Your task to perform on an android device: toggle sleep mode Image 0: 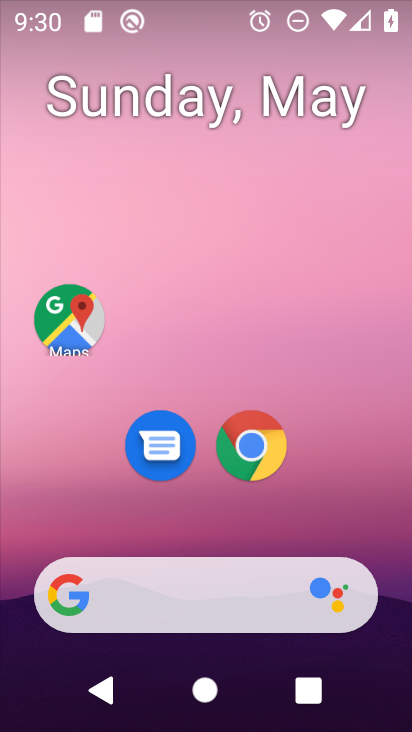
Step 0: drag from (300, 603) to (337, 257)
Your task to perform on an android device: toggle sleep mode Image 1: 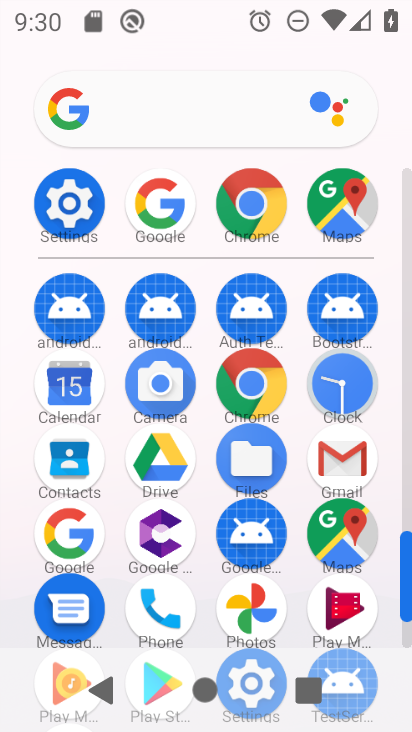
Step 1: click (90, 224)
Your task to perform on an android device: toggle sleep mode Image 2: 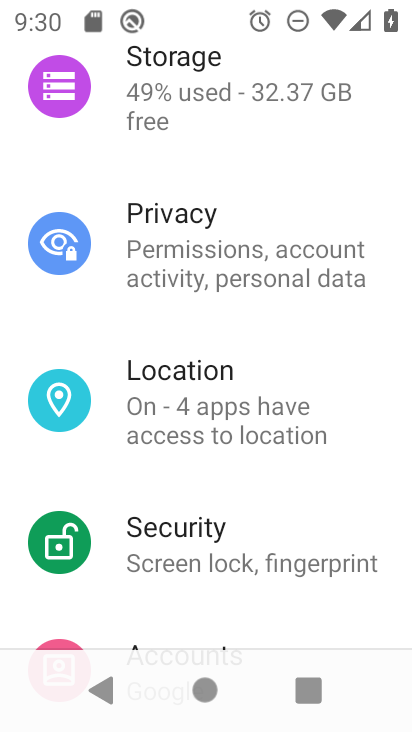
Step 2: drag from (202, 417) to (200, 336)
Your task to perform on an android device: toggle sleep mode Image 3: 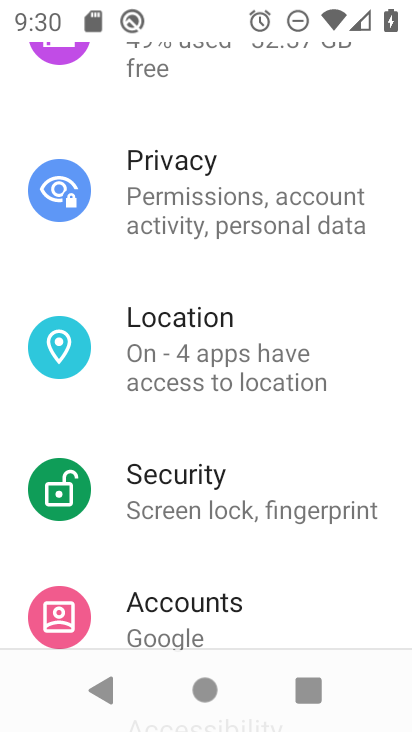
Step 3: drag from (200, 336) to (199, 528)
Your task to perform on an android device: toggle sleep mode Image 4: 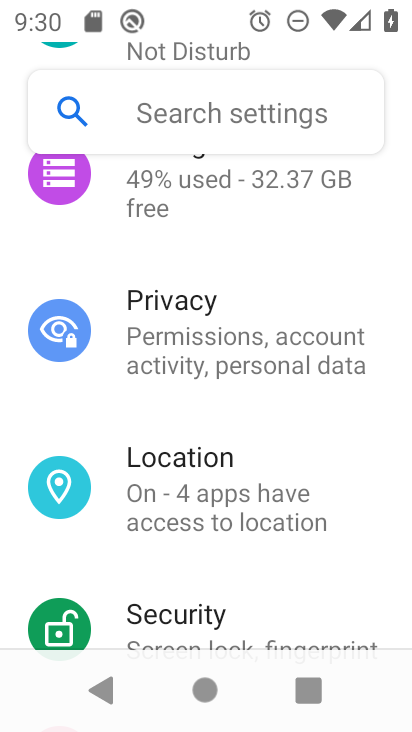
Step 4: drag from (199, 549) to (211, 417)
Your task to perform on an android device: toggle sleep mode Image 5: 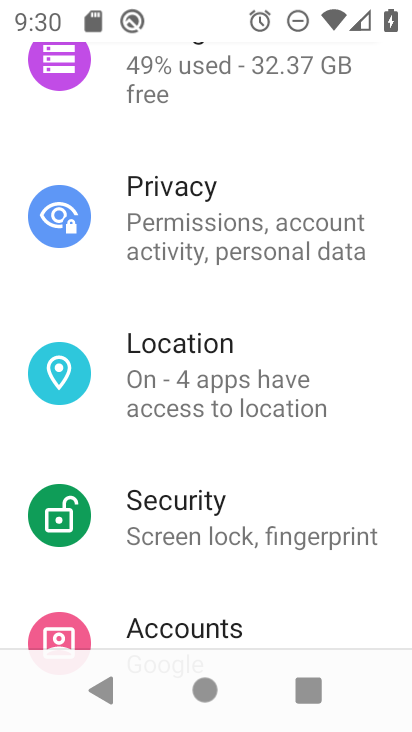
Step 5: drag from (221, 362) to (200, 437)
Your task to perform on an android device: toggle sleep mode Image 6: 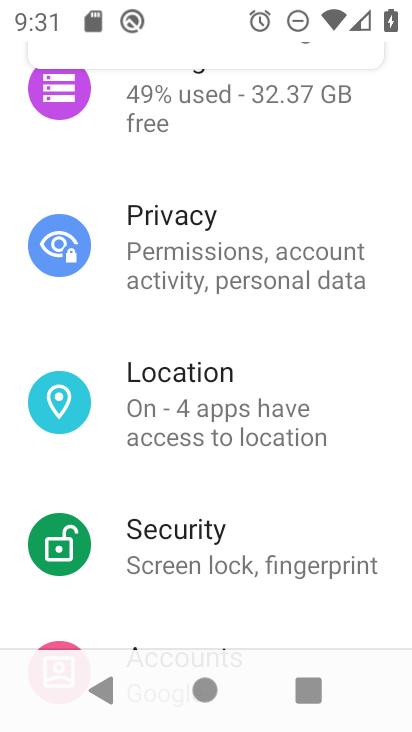
Step 6: drag from (253, 175) to (226, 510)
Your task to perform on an android device: toggle sleep mode Image 7: 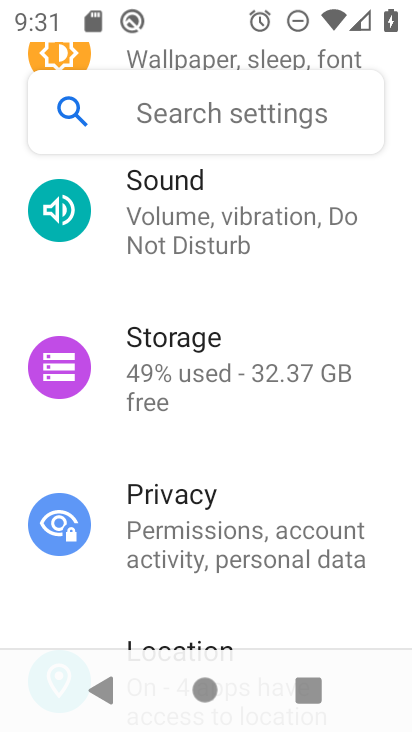
Step 7: drag from (257, 216) to (231, 543)
Your task to perform on an android device: toggle sleep mode Image 8: 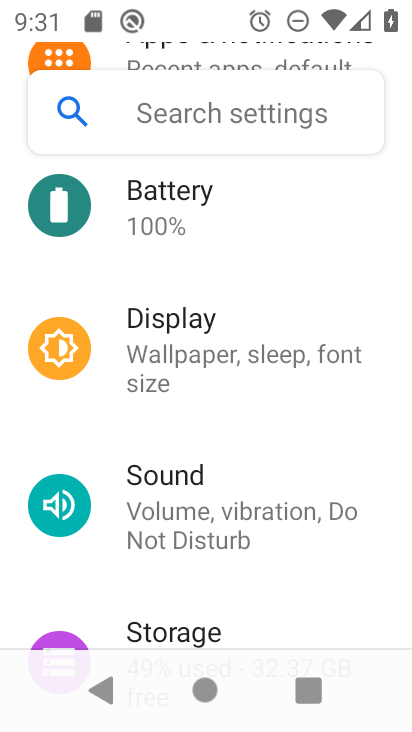
Step 8: click (227, 380)
Your task to perform on an android device: toggle sleep mode Image 9: 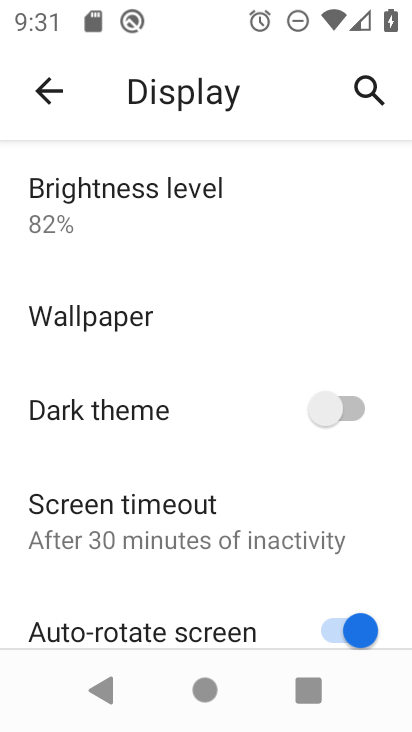
Step 9: drag from (158, 576) to (214, 324)
Your task to perform on an android device: toggle sleep mode Image 10: 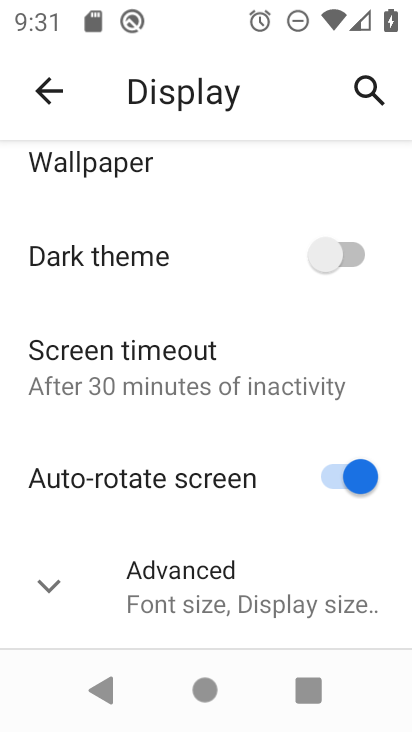
Step 10: click (144, 599)
Your task to perform on an android device: toggle sleep mode Image 11: 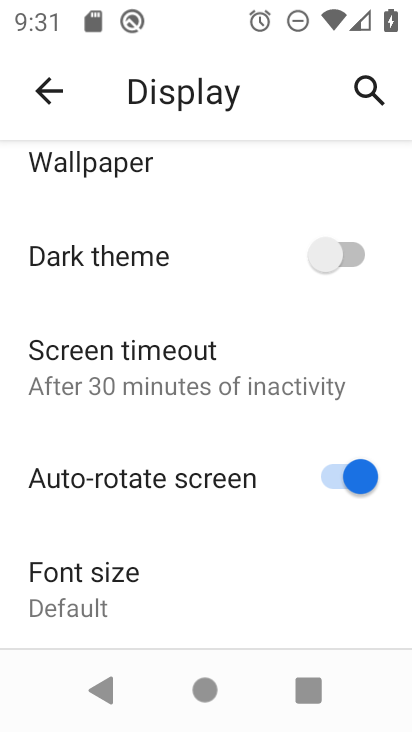
Step 11: task complete